Your task to perform on an android device: Go to Wikipedia Image 0: 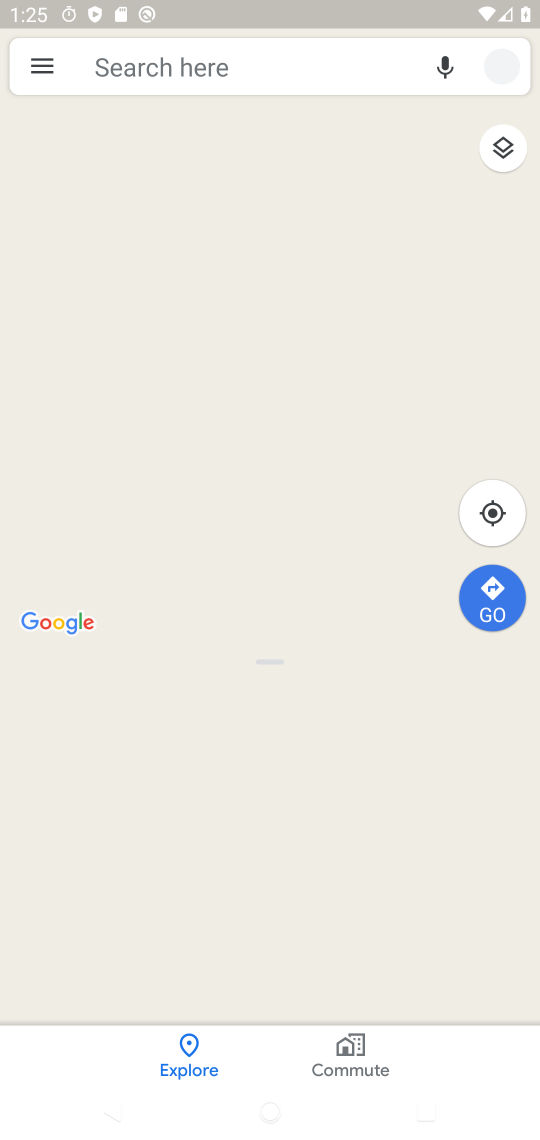
Step 0: press home button
Your task to perform on an android device: Go to Wikipedia Image 1: 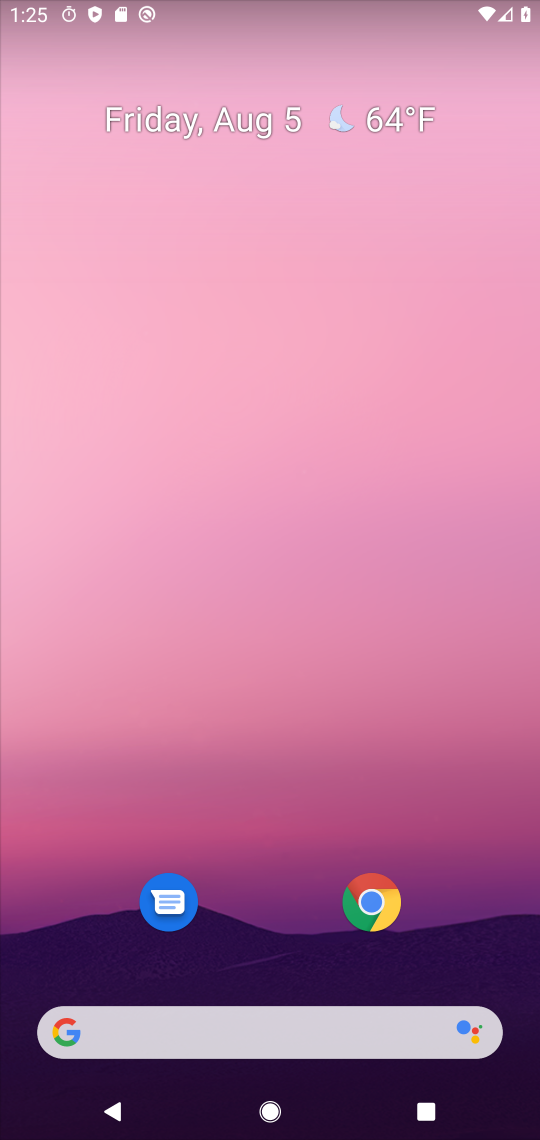
Step 1: drag from (289, 1054) to (215, 195)
Your task to perform on an android device: Go to Wikipedia Image 2: 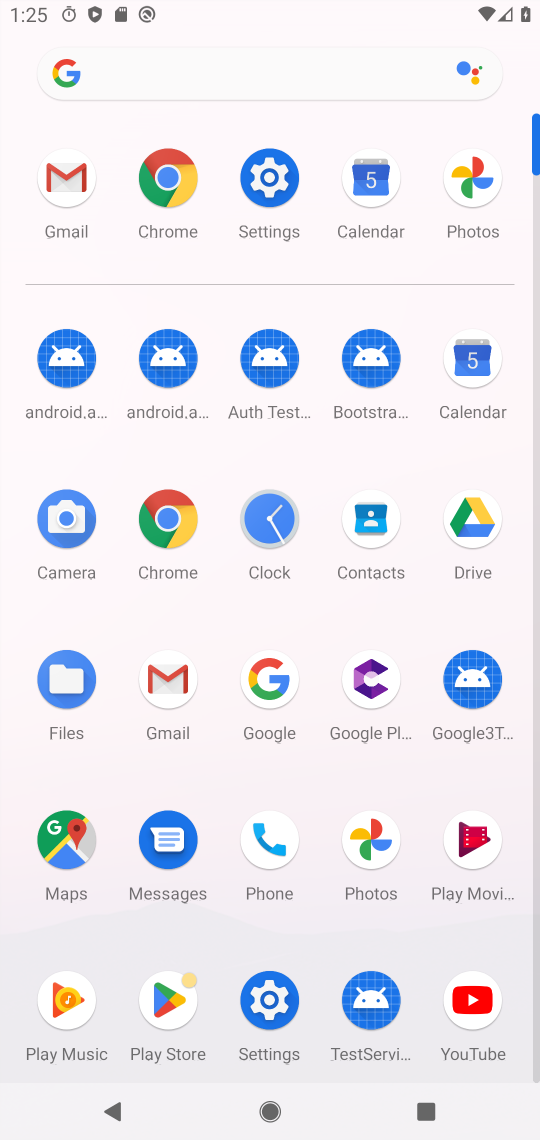
Step 2: click (176, 159)
Your task to perform on an android device: Go to Wikipedia Image 3: 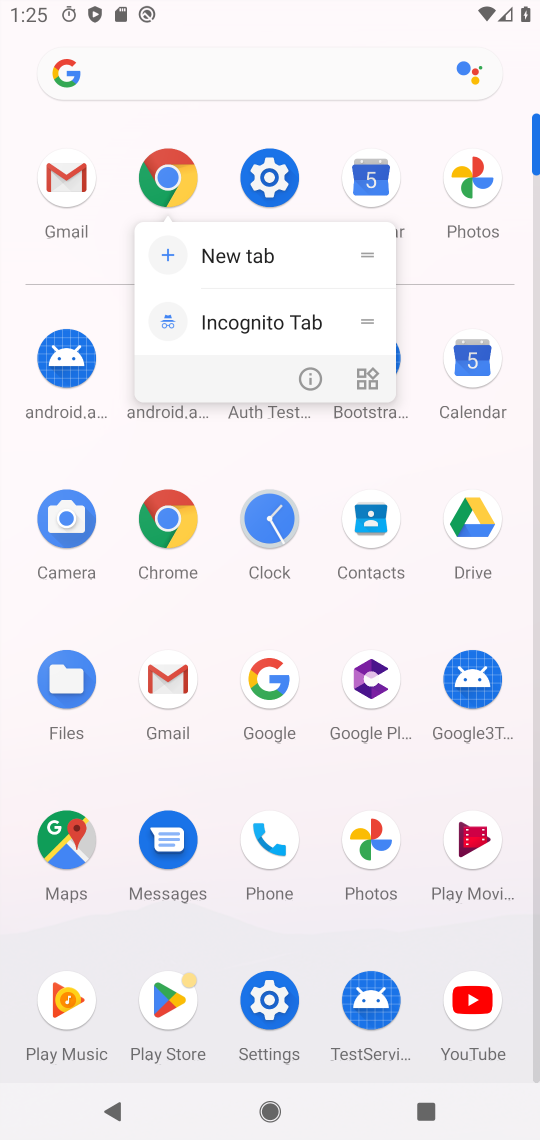
Step 3: click (166, 170)
Your task to perform on an android device: Go to Wikipedia Image 4: 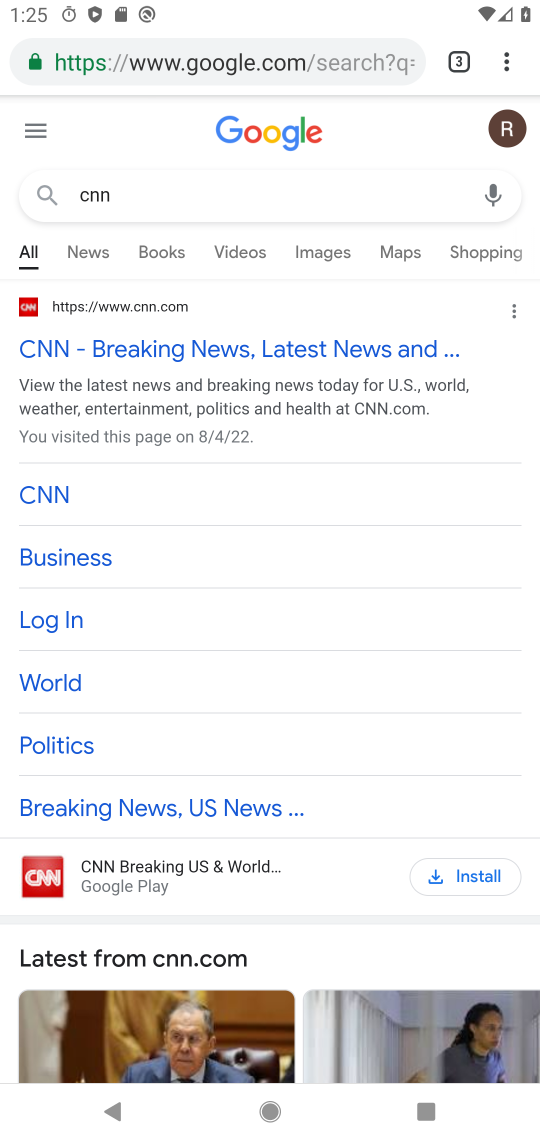
Step 4: click (458, 57)
Your task to perform on an android device: Go to Wikipedia Image 5: 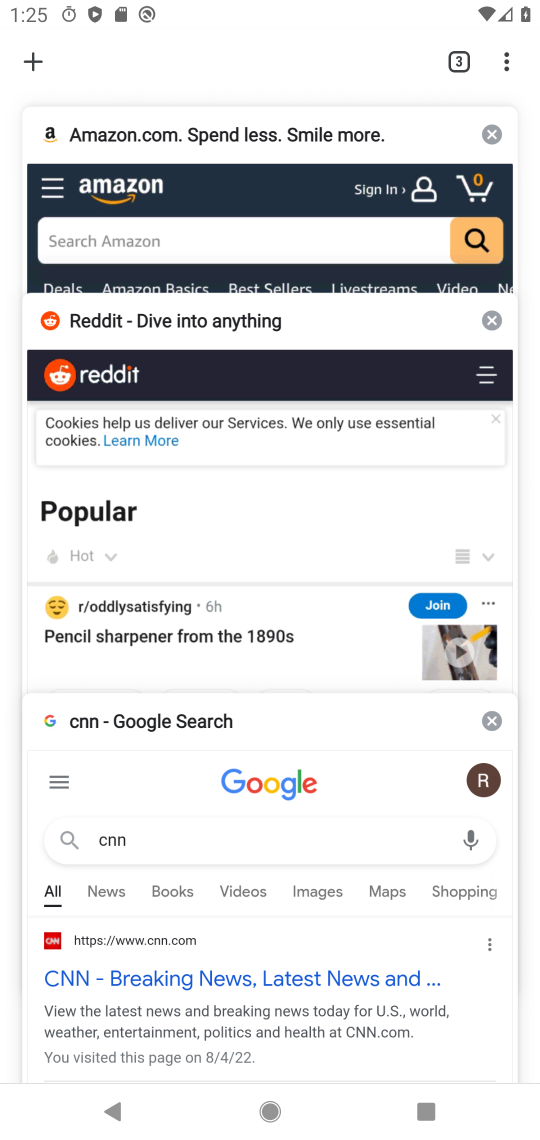
Step 5: click (23, 80)
Your task to perform on an android device: Go to Wikipedia Image 6: 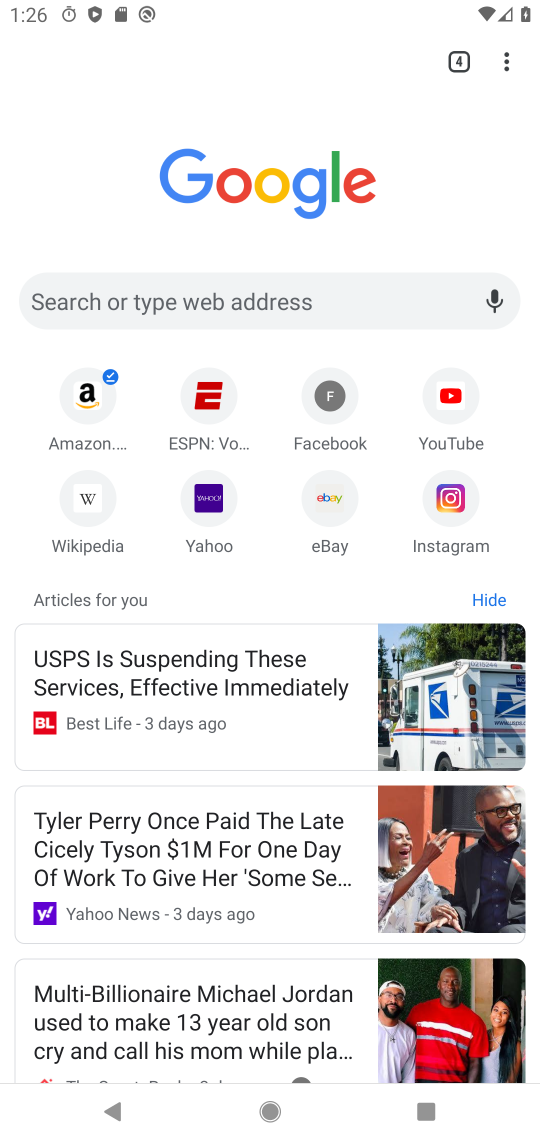
Step 6: click (101, 493)
Your task to perform on an android device: Go to Wikipedia Image 7: 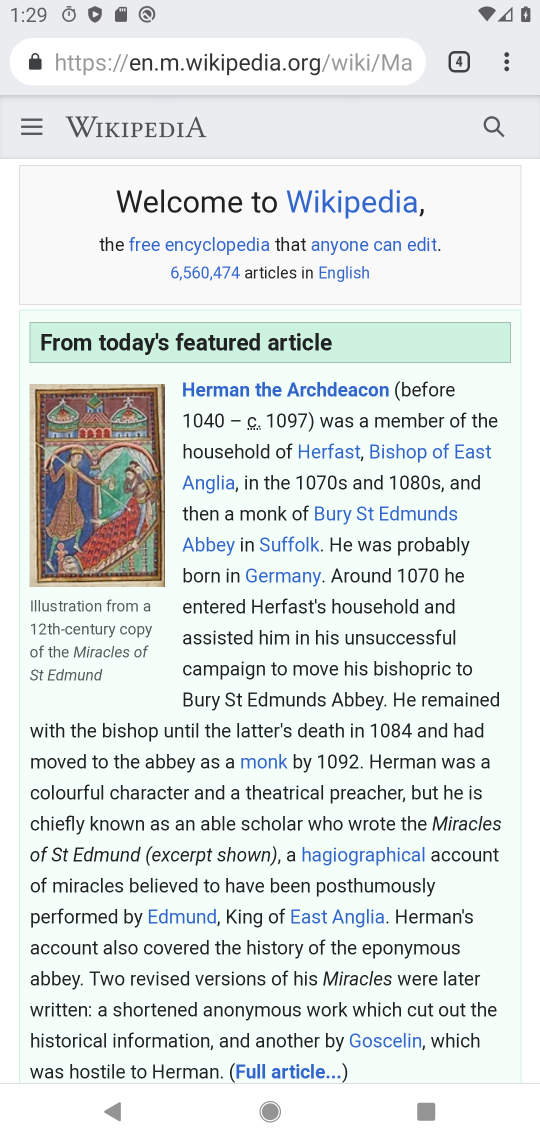
Step 7: task complete